Your task to perform on an android device: Is it going to rain tomorrow? Image 0: 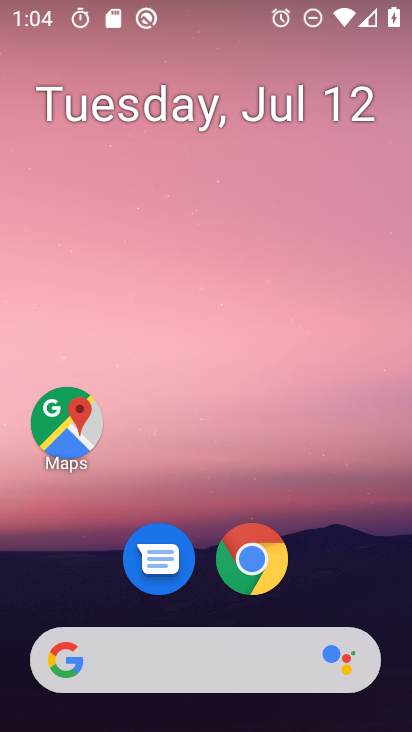
Step 0: click (194, 644)
Your task to perform on an android device: Is it going to rain tomorrow? Image 1: 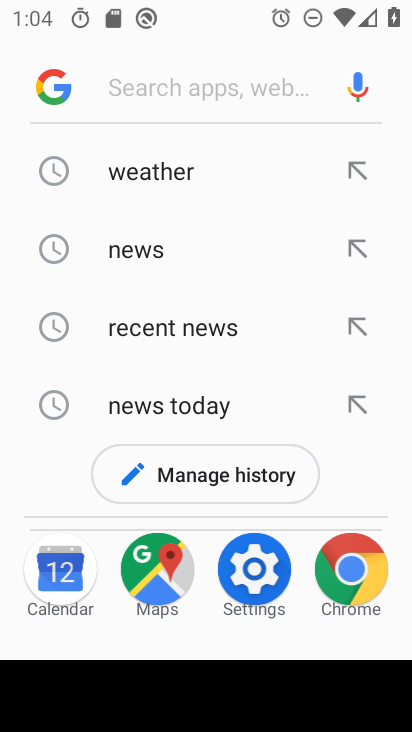
Step 1: click (173, 161)
Your task to perform on an android device: Is it going to rain tomorrow? Image 2: 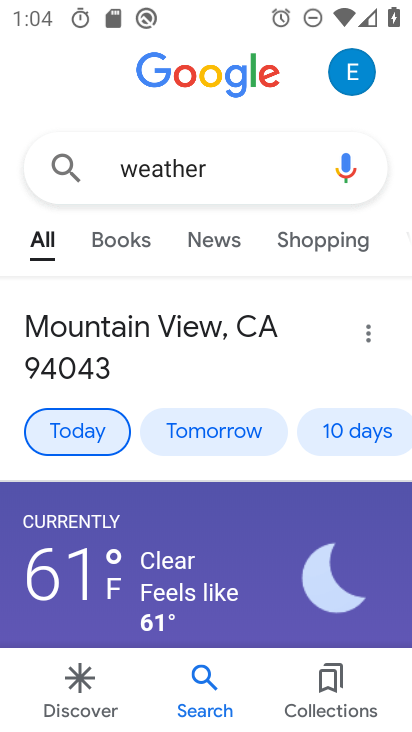
Step 2: click (187, 433)
Your task to perform on an android device: Is it going to rain tomorrow? Image 3: 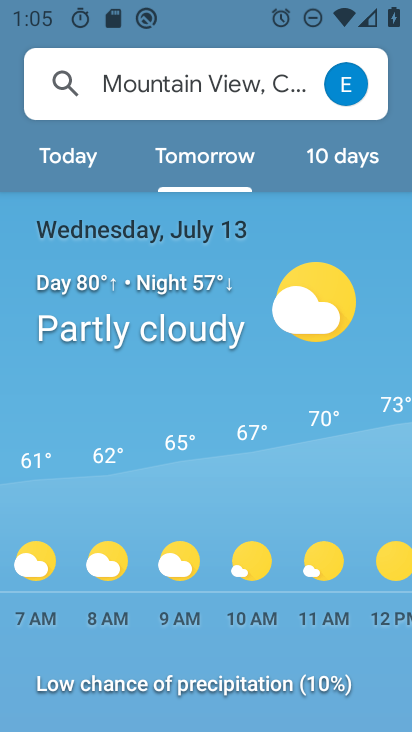
Step 3: task complete